Your task to perform on an android device: What's the weather today? Image 0: 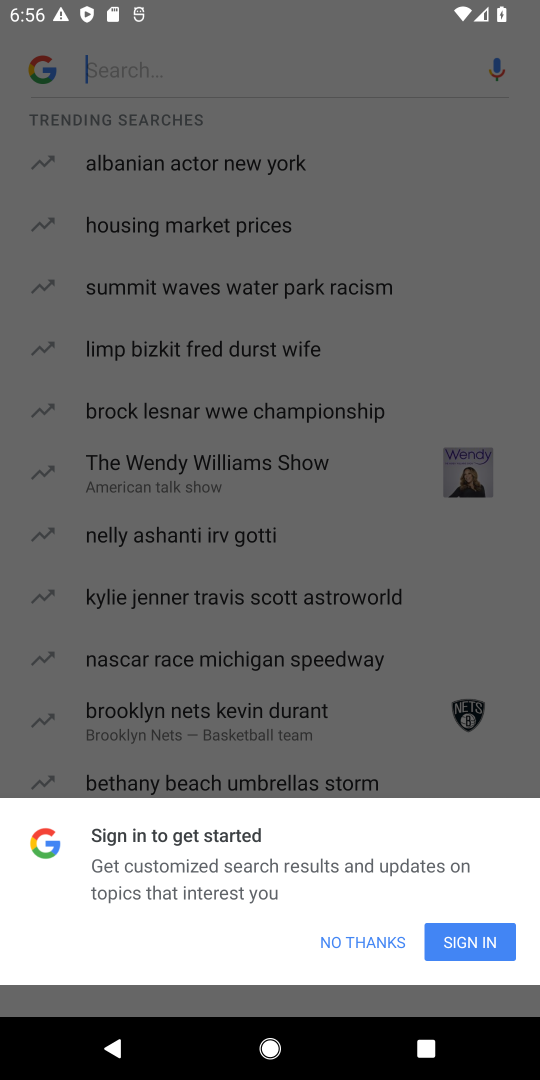
Step 0: click (350, 941)
Your task to perform on an android device: What's the weather today? Image 1: 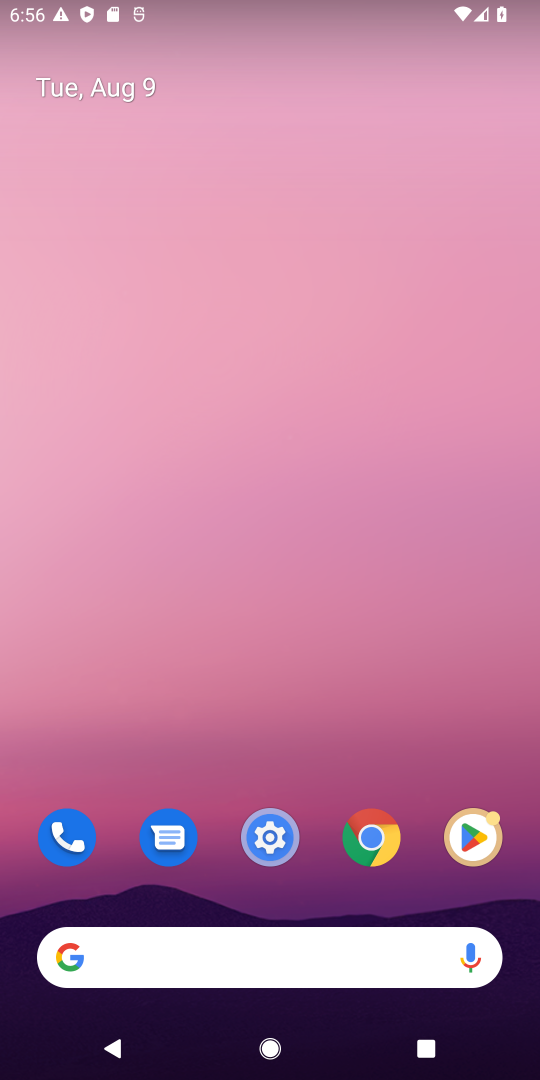
Step 1: drag from (240, 874) to (333, 319)
Your task to perform on an android device: What's the weather today? Image 2: 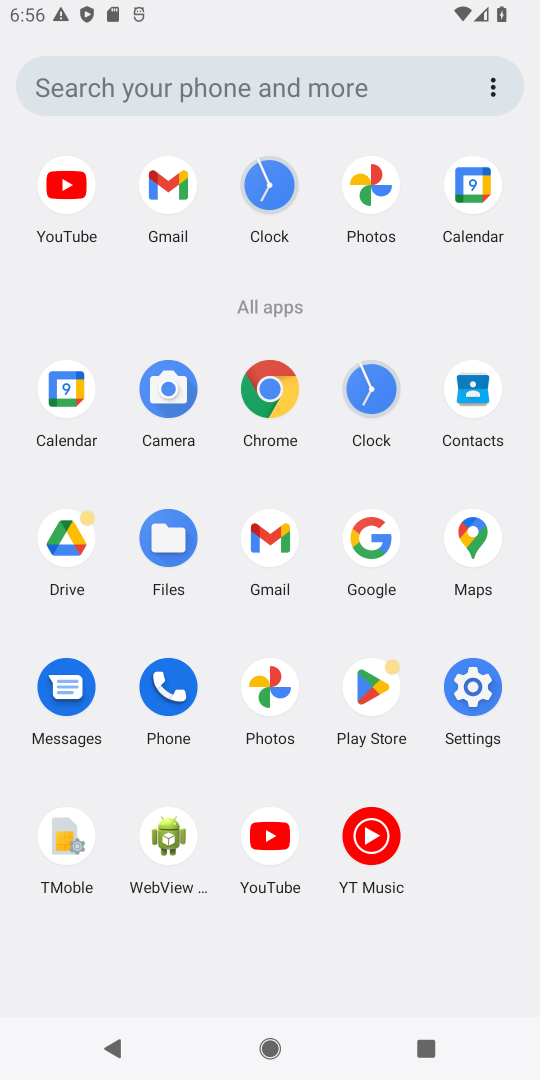
Step 2: click (130, 86)
Your task to perform on an android device: What's the weather today? Image 3: 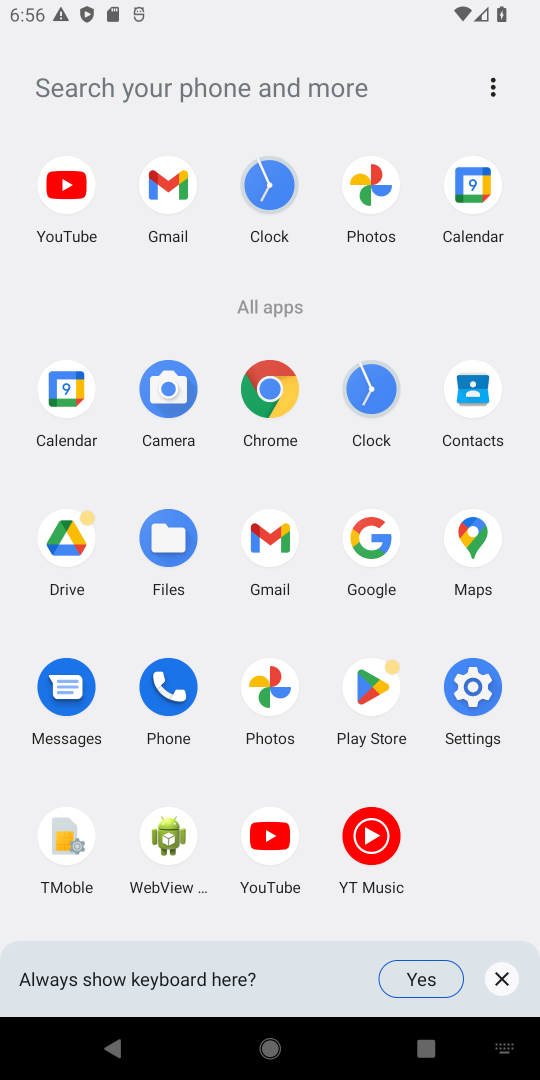
Step 3: type "weather today?"
Your task to perform on an android device: What's the weather today? Image 4: 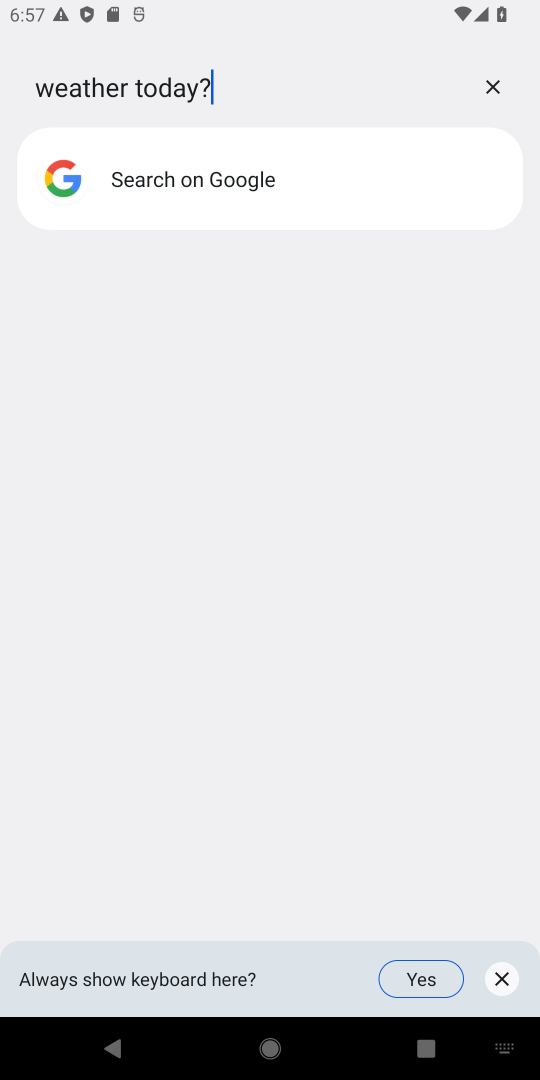
Step 4: drag from (300, 799) to (312, 629)
Your task to perform on an android device: What's the weather today? Image 5: 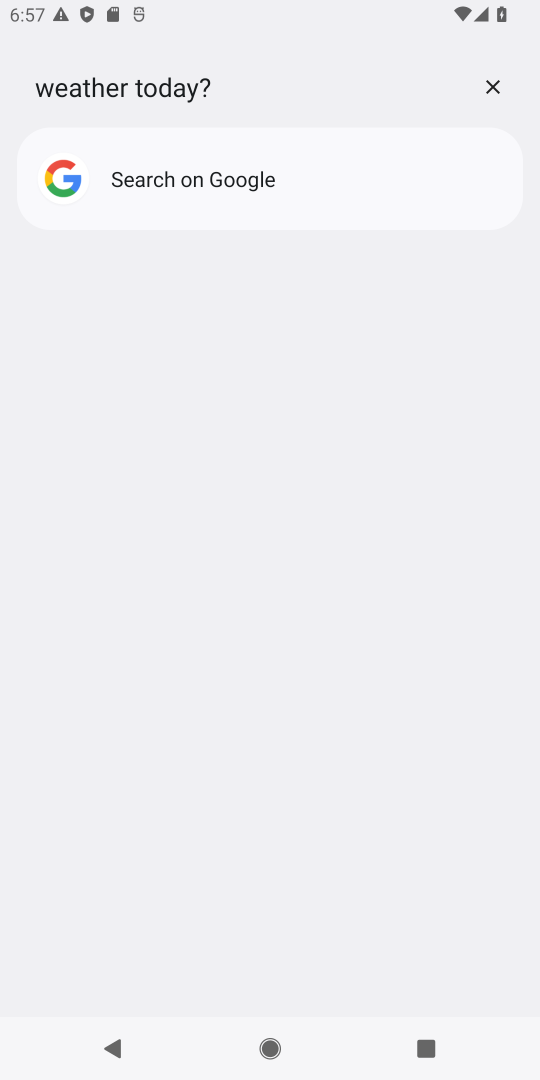
Step 5: click (115, 209)
Your task to perform on an android device: What's the weather today? Image 6: 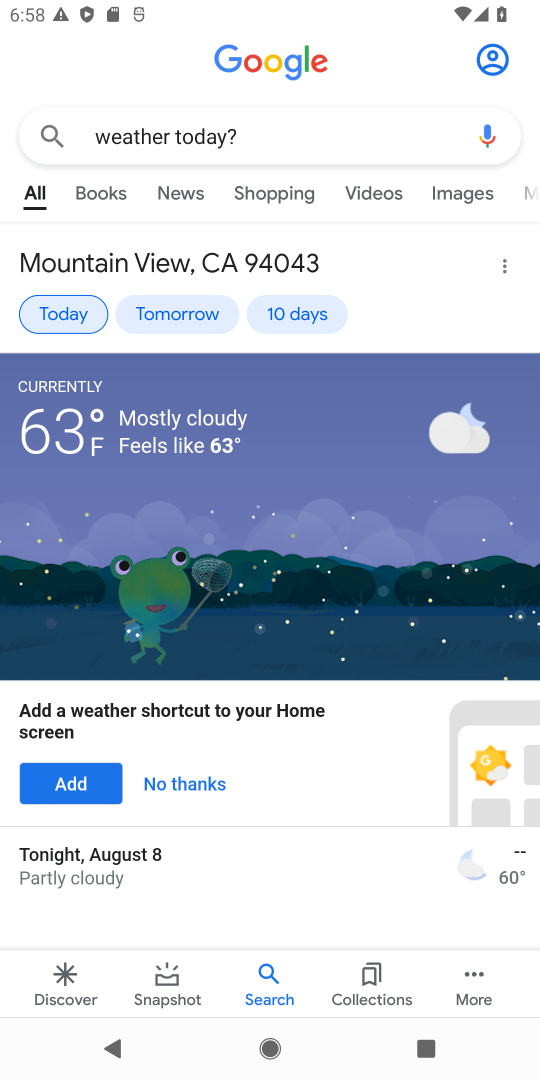
Step 6: task complete